Your task to perform on an android device: Open Chrome and go to settings Image 0: 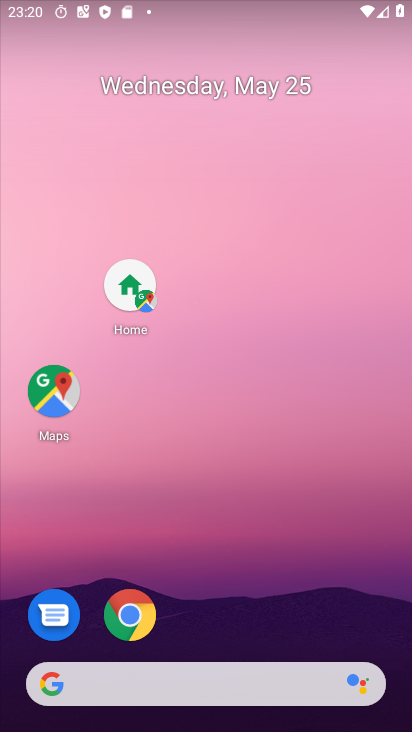
Step 0: press home button
Your task to perform on an android device: Open Chrome and go to settings Image 1: 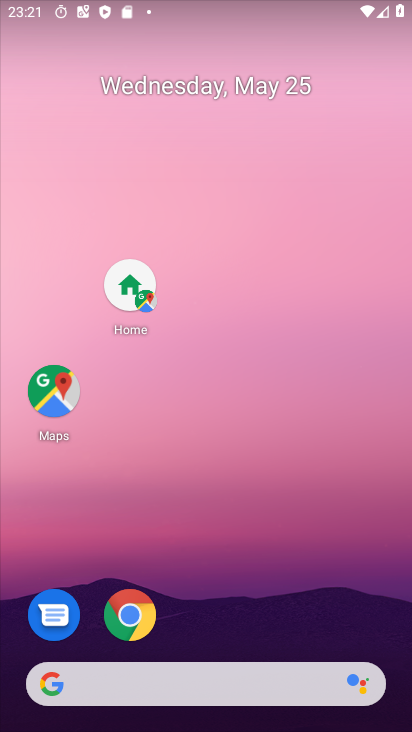
Step 1: click (135, 610)
Your task to perform on an android device: Open Chrome and go to settings Image 2: 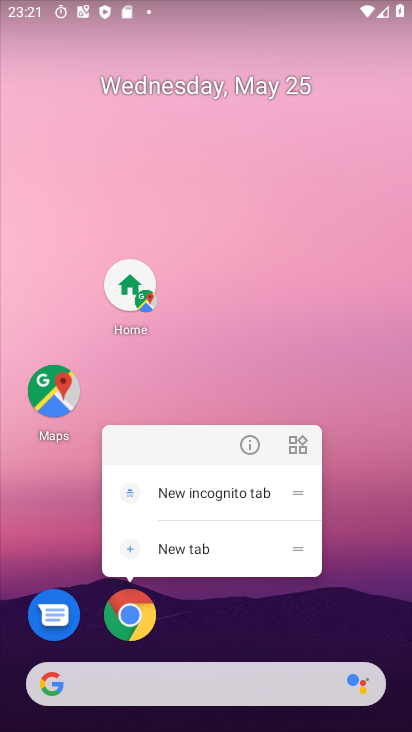
Step 2: click (140, 618)
Your task to perform on an android device: Open Chrome and go to settings Image 3: 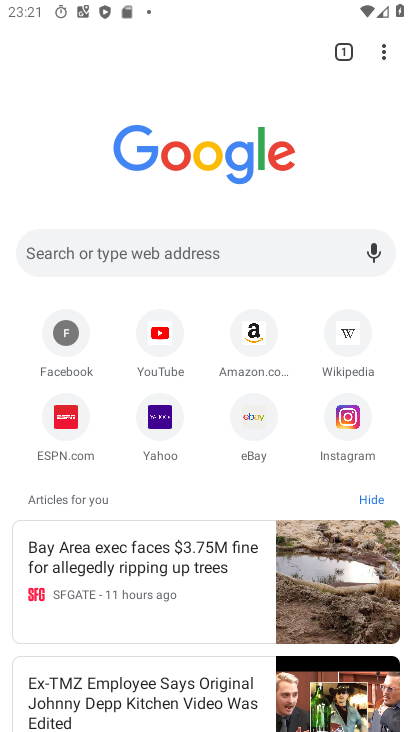
Step 3: task complete